Your task to perform on an android device: Open accessibility settings Image 0: 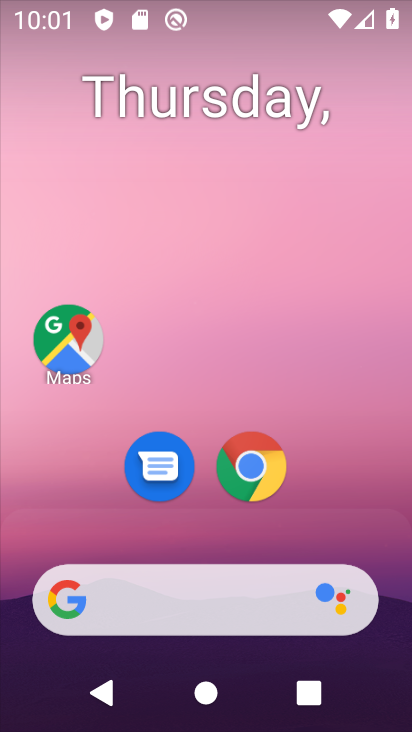
Step 0: drag from (159, 615) to (284, 66)
Your task to perform on an android device: Open accessibility settings Image 1: 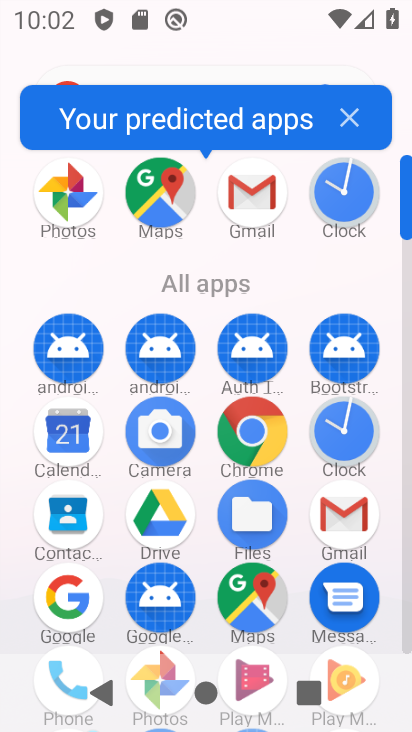
Step 1: drag from (196, 521) to (291, 142)
Your task to perform on an android device: Open accessibility settings Image 2: 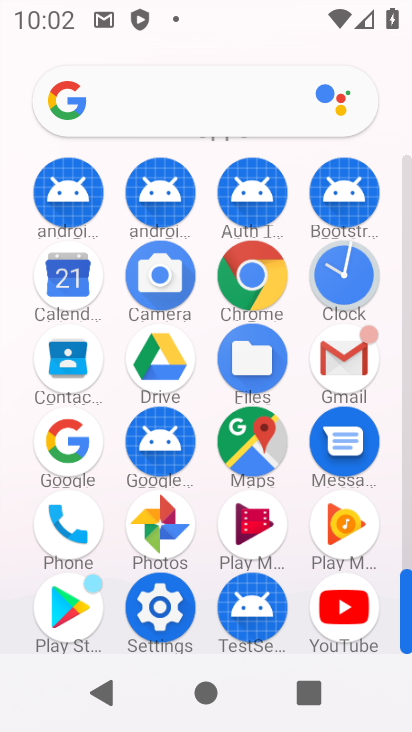
Step 2: click (167, 614)
Your task to perform on an android device: Open accessibility settings Image 3: 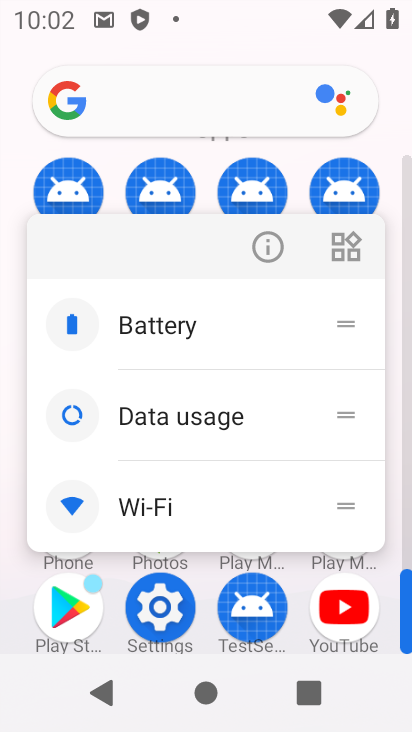
Step 3: click (148, 600)
Your task to perform on an android device: Open accessibility settings Image 4: 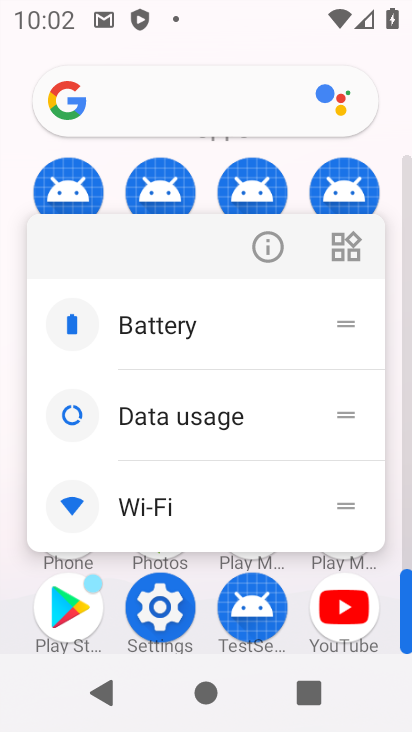
Step 4: click (166, 615)
Your task to perform on an android device: Open accessibility settings Image 5: 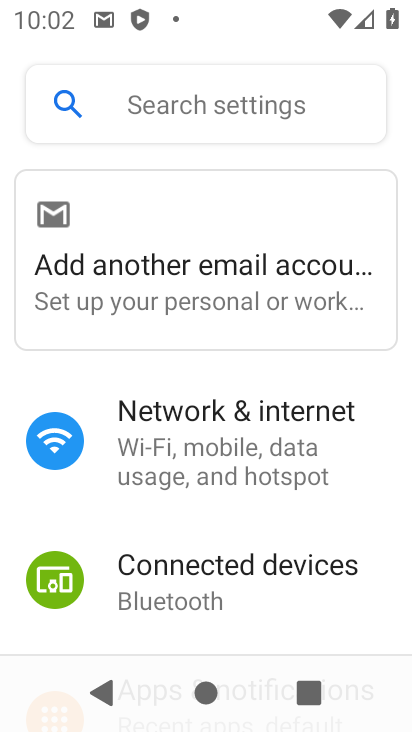
Step 5: drag from (245, 489) to (369, 141)
Your task to perform on an android device: Open accessibility settings Image 6: 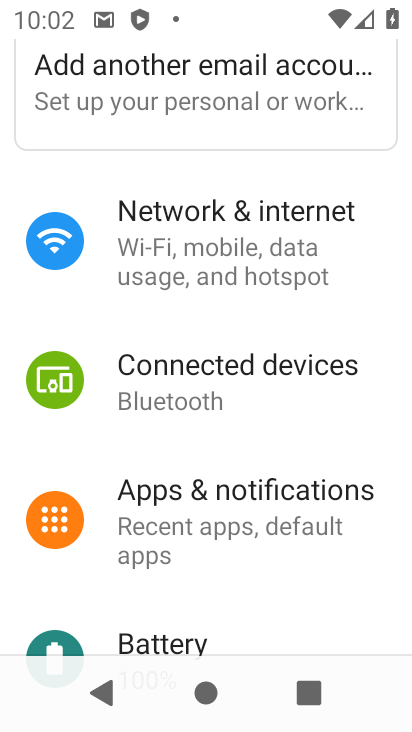
Step 6: drag from (237, 624) to (310, 89)
Your task to perform on an android device: Open accessibility settings Image 7: 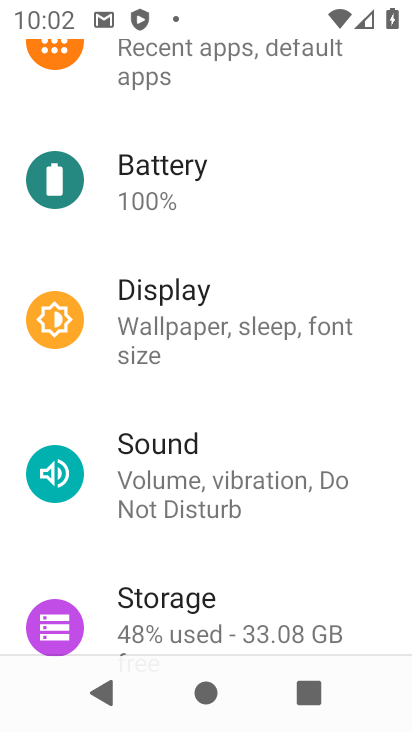
Step 7: drag from (253, 607) to (349, 108)
Your task to perform on an android device: Open accessibility settings Image 8: 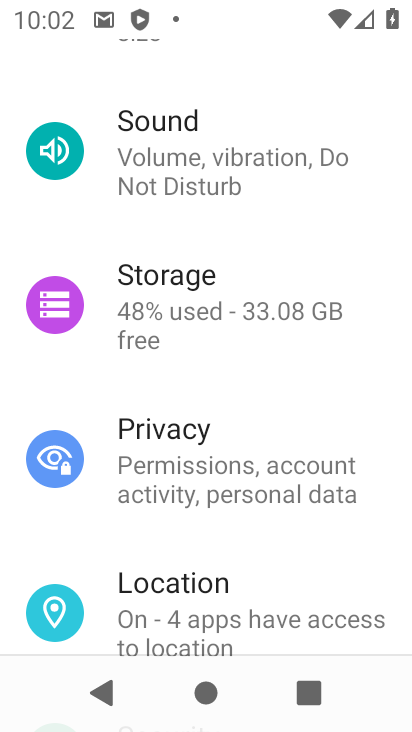
Step 8: drag from (260, 552) to (353, 75)
Your task to perform on an android device: Open accessibility settings Image 9: 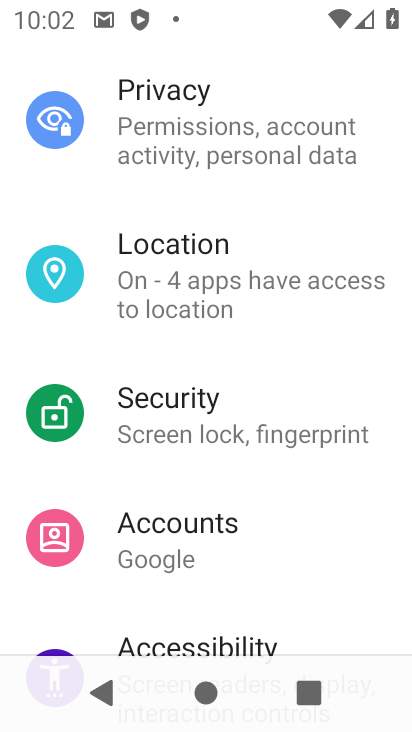
Step 9: drag from (236, 568) to (317, 149)
Your task to perform on an android device: Open accessibility settings Image 10: 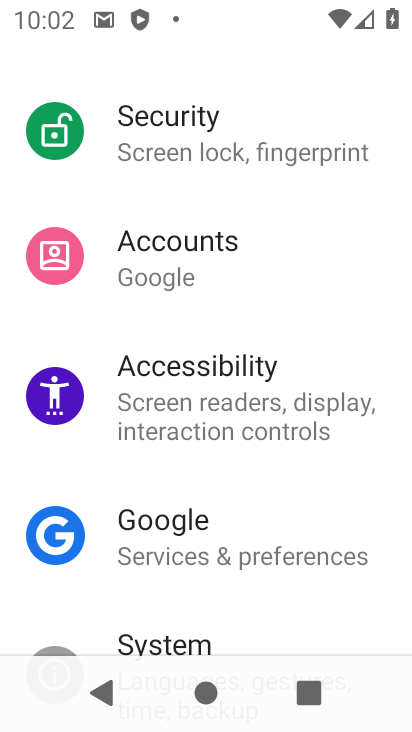
Step 10: click (214, 368)
Your task to perform on an android device: Open accessibility settings Image 11: 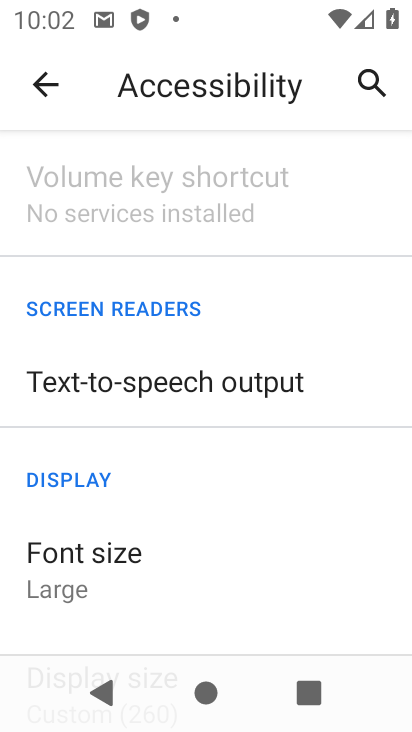
Step 11: task complete